Your task to perform on an android device: turn notification dots on Image 0: 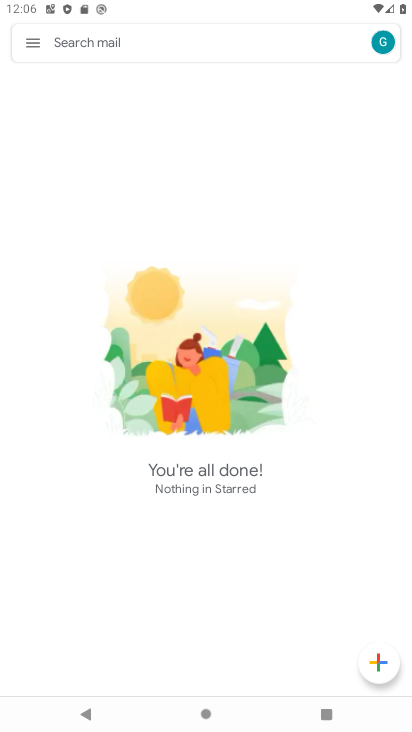
Step 0: press home button
Your task to perform on an android device: turn notification dots on Image 1: 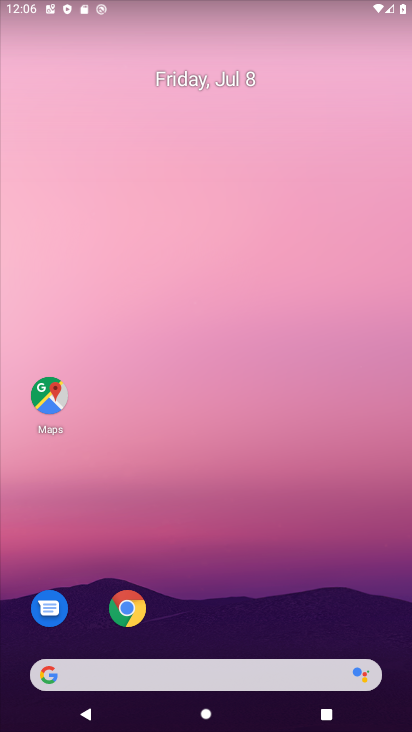
Step 1: drag from (206, 619) to (223, 142)
Your task to perform on an android device: turn notification dots on Image 2: 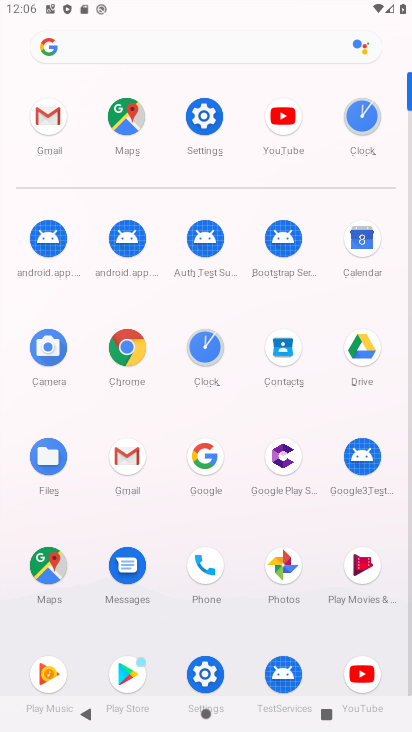
Step 2: click (210, 148)
Your task to perform on an android device: turn notification dots on Image 3: 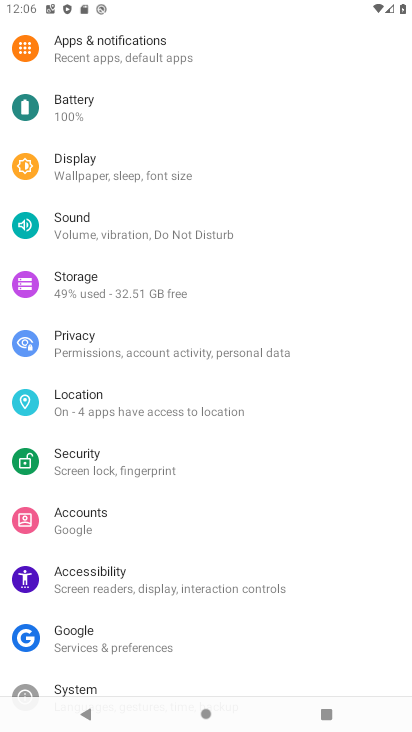
Step 3: click (175, 59)
Your task to perform on an android device: turn notification dots on Image 4: 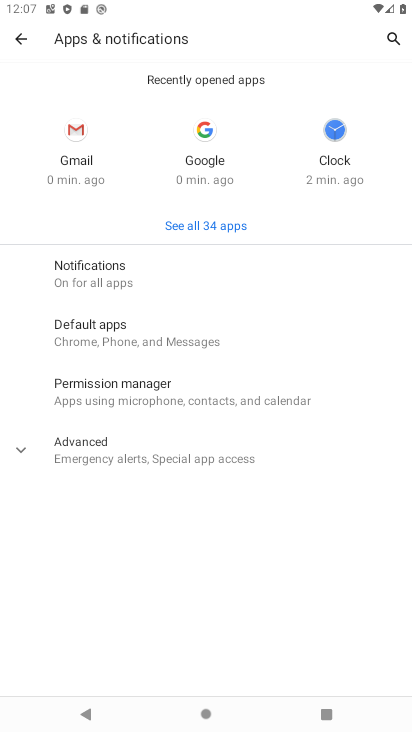
Step 4: click (128, 290)
Your task to perform on an android device: turn notification dots on Image 5: 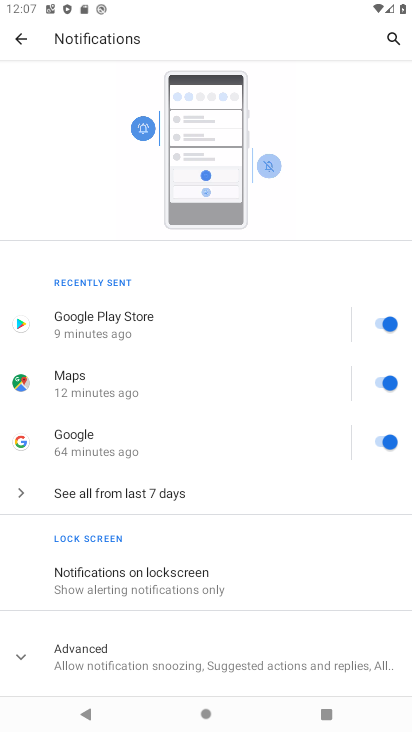
Step 5: click (191, 620)
Your task to perform on an android device: turn notification dots on Image 6: 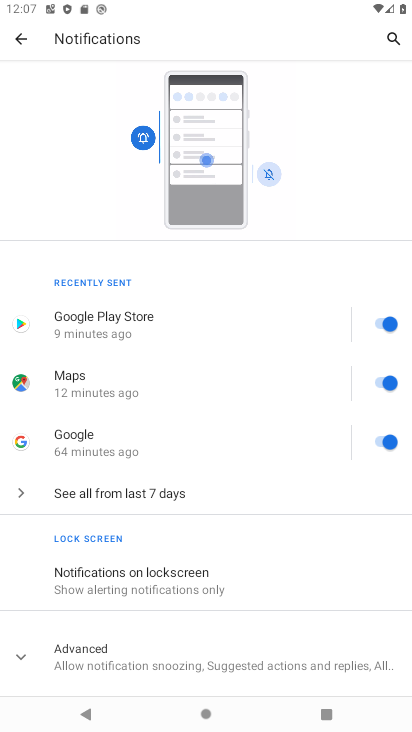
Step 6: drag from (294, 595) to (326, 145)
Your task to perform on an android device: turn notification dots on Image 7: 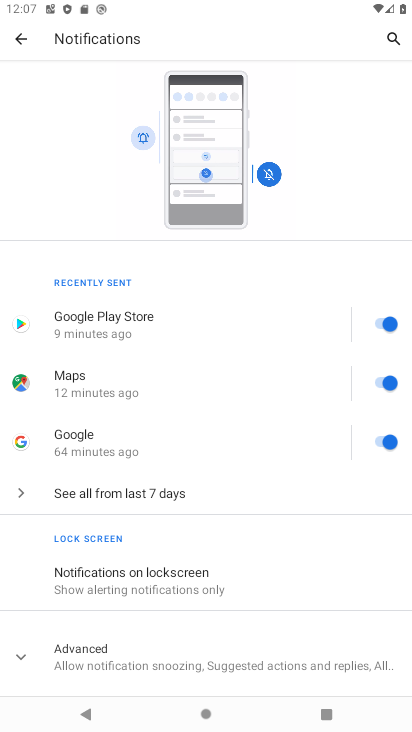
Step 7: click (164, 637)
Your task to perform on an android device: turn notification dots on Image 8: 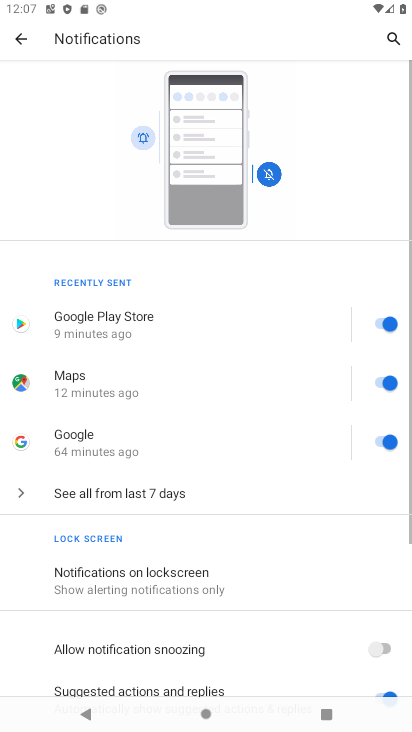
Step 8: drag from (269, 613) to (285, 300)
Your task to perform on an android device: turn notification dots on Image 9: 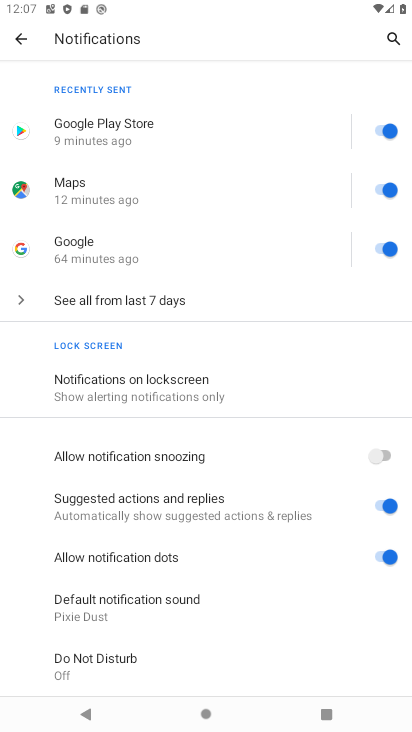
Step 9: click (355, 558)
Your task to perform on an android device: turn notification dots on Image 10: 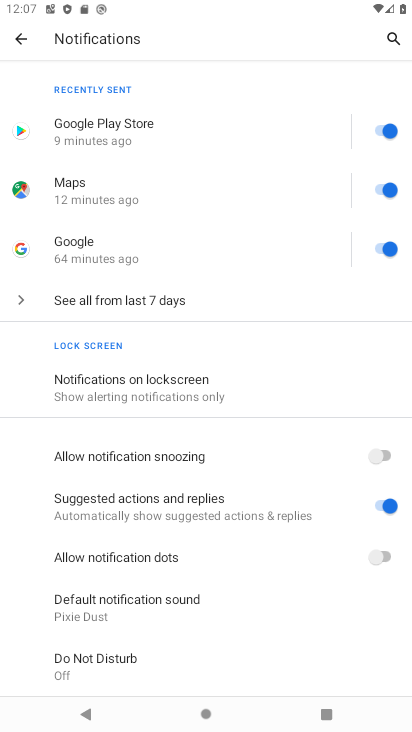
Step 10: task complete